Your task to perform on an android device: turn on javascript in the chrome app Image 0: 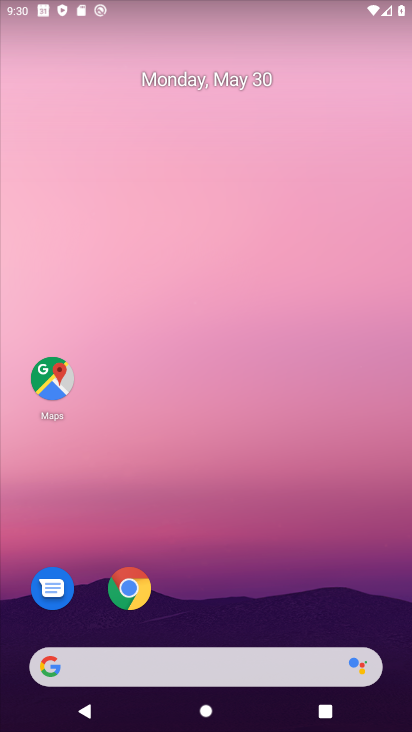
Step 0: click (152, 587)
Your task to perform on an android device: turn on javascript in the chrome app Image 1: 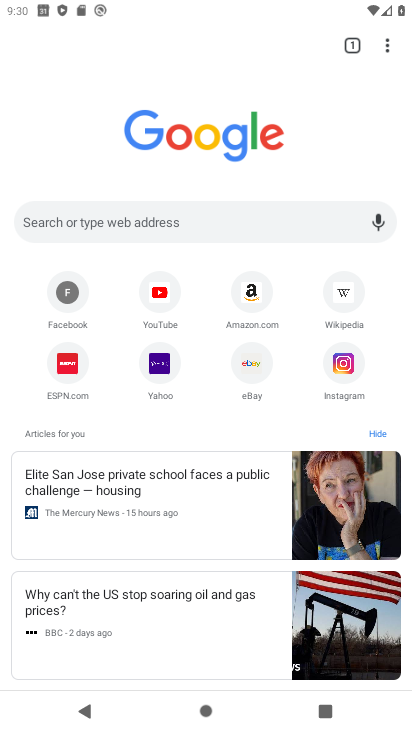
Step 1: click (388, 41)
Your task to perform on an android device: turn on javascript in the chrome app Image 2: 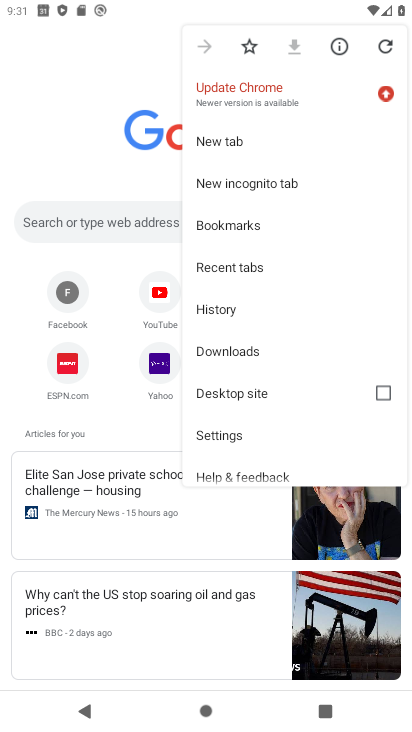
Step 2: click (247, 437)
Your task to perform on an android device: turn on javascript in the chrome app Image 3: 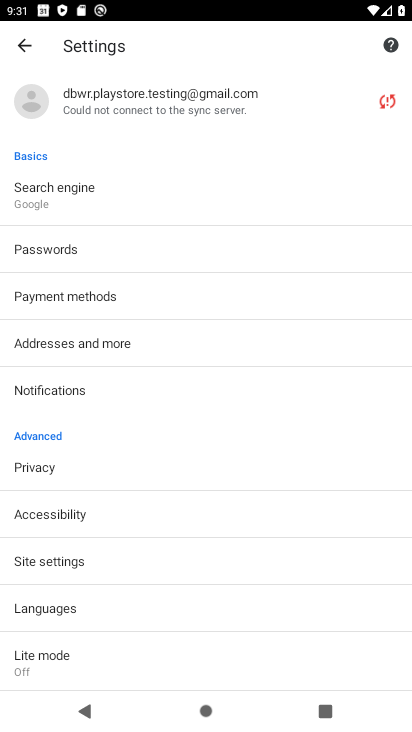
Step 3: click (83, 554)
Your task to perform on an android device: turn on javascript in the chrome app Image 4: 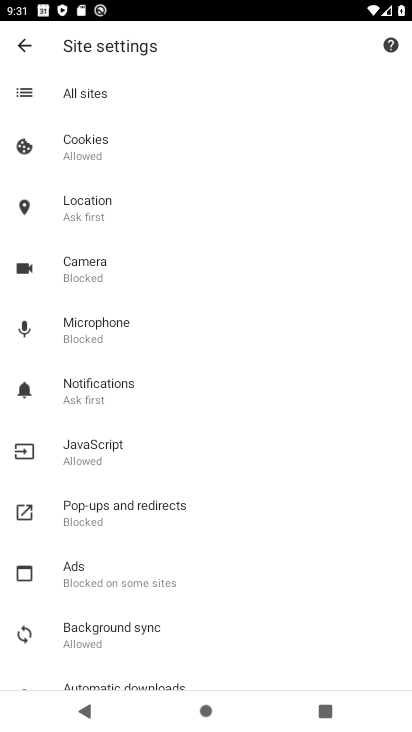
Step 4: click (110, 453)
Your task to perform on an android device: turn on javascript in the chrome app Image 5: 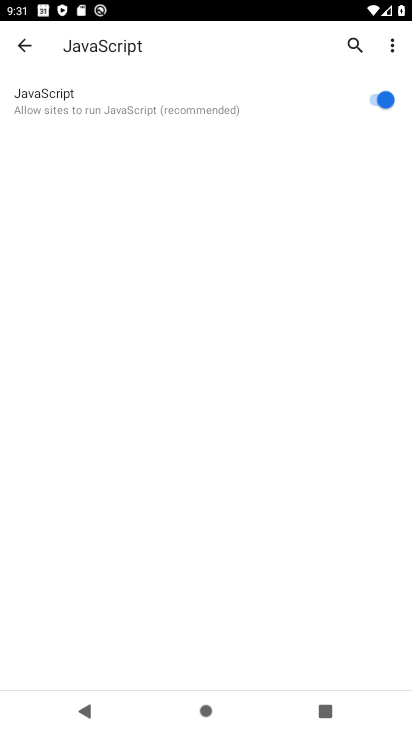
Step 5: task complete